Your task to perform on an android device: change notifications settings Image 0: 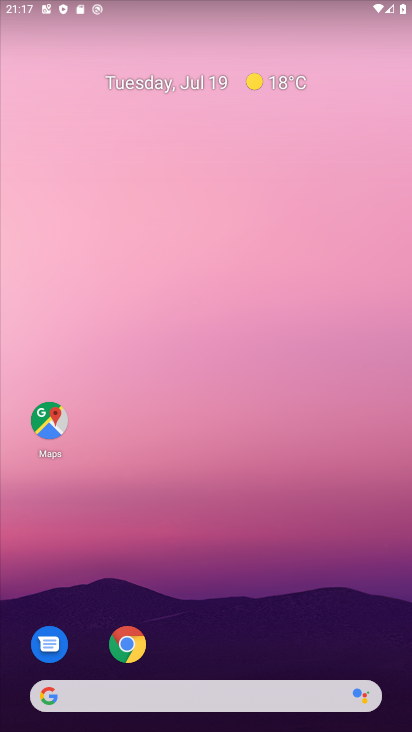
Step 0: drag from (206, 717) to (228, 165)
Your task to perform on an android device: change notifications settings Image 1: 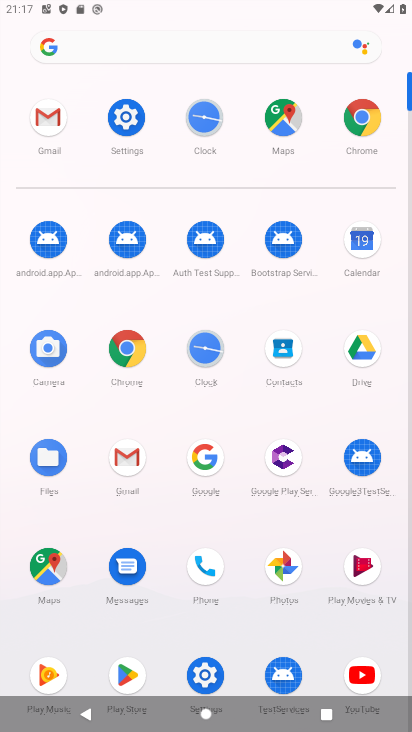
Step 1: click (122, 119)
Your task to perform on an android device: change notifications settings Image 2: 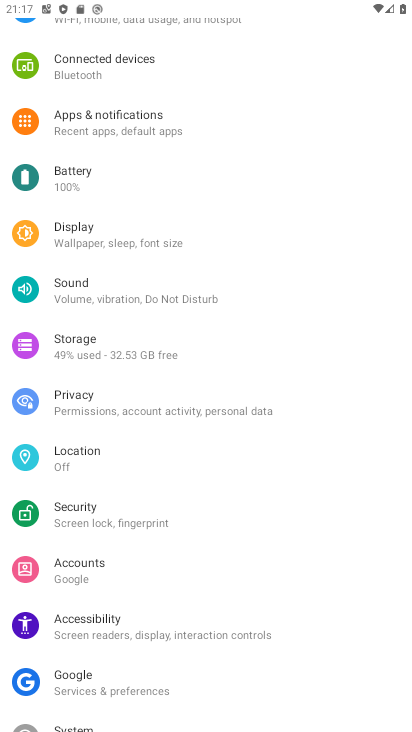
Step 2: click (112, 128)
Your task to perform on an android device: change notifications settings Image 3: 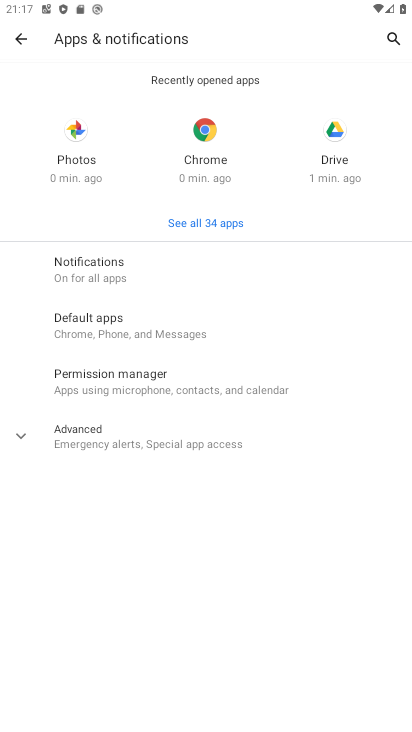
Step 3: click (88, 272)
Your task to perform on an android device: change notifications settings Image 4: 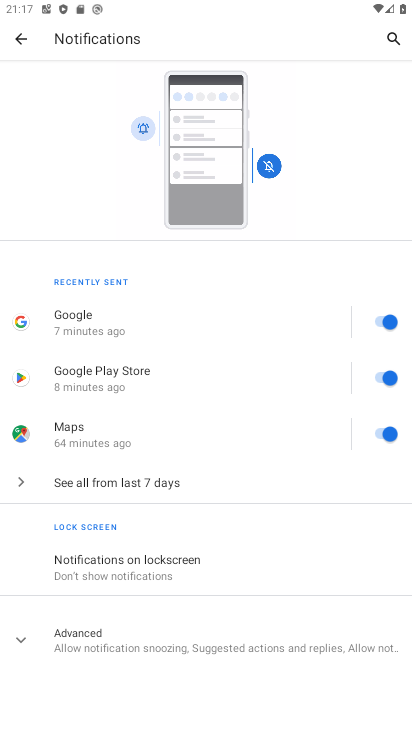
Step 4: click (135, 642)
Your task to perform on an android device: change notifications settings Image 5: 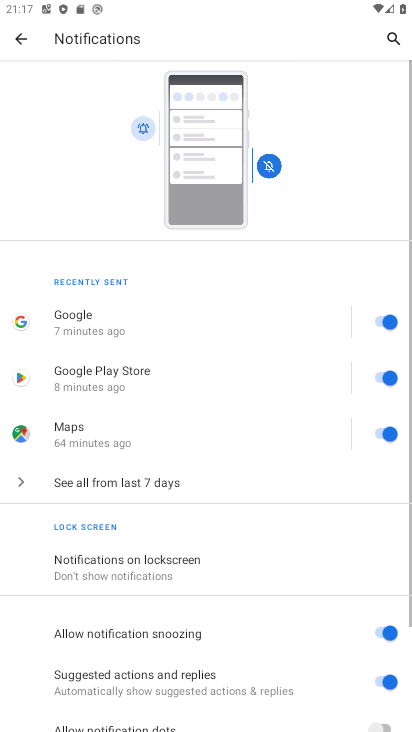
Step 5: click (371, 633)
Your task to perform on an android device: change notifications settings Image 6: 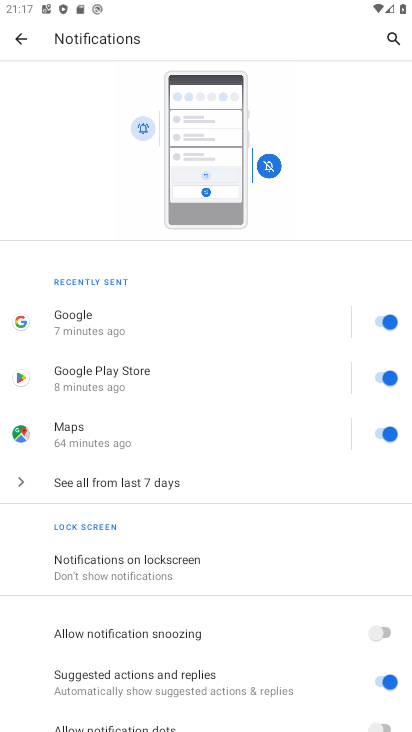
Step 6: task complete